Your task to perform on an android device: Clear all items from cart on newegg. Search for razer naga on newegg, select the first entry, add it to the cart, then select checkout. Image 0: 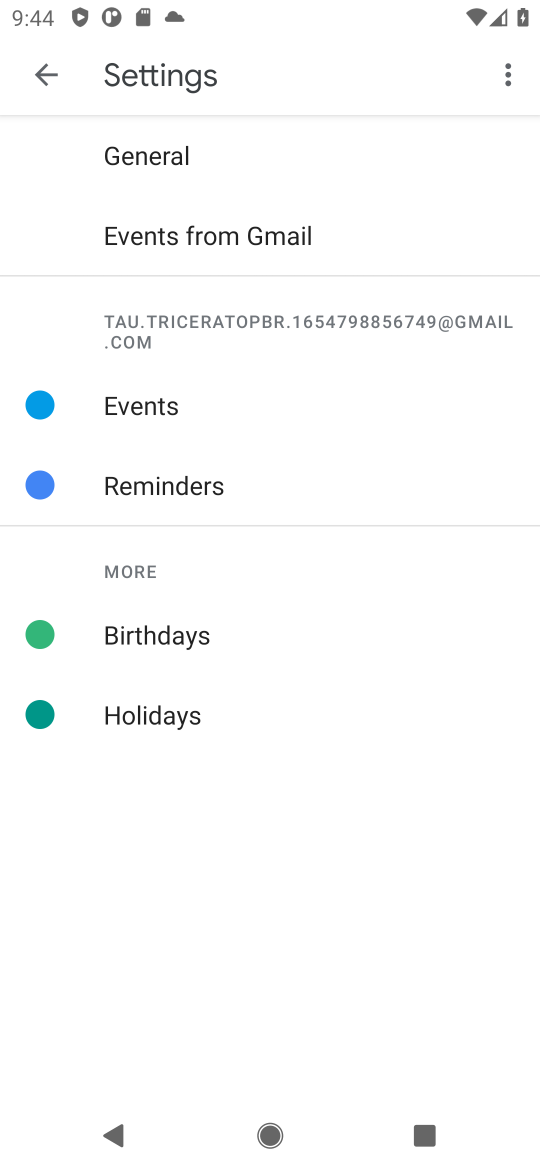
Step 0: press home button
Your task to perform on an android device: Clear all items from cart on newegg. Search for razer naga on newegg, select the first entry, add it to the cart, then select checkout. Image 1: 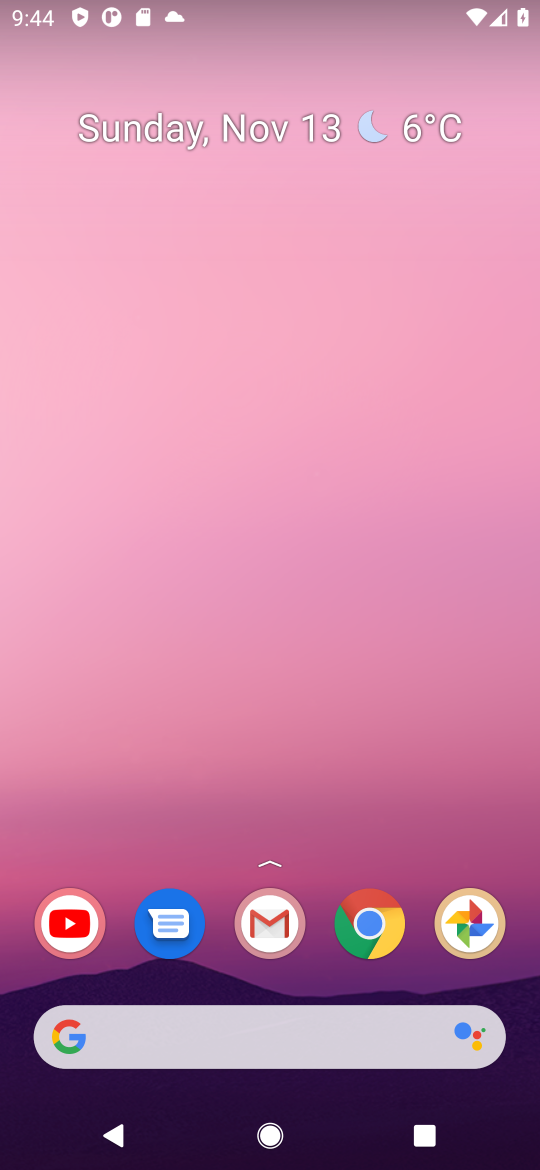
Step 1: click (364, 911)
Your task to perform on an android device: Clear all items from cart on newegg. Search for razer naga on newegg, select the first entry, add it to the cart, then select checkout. Image 2: 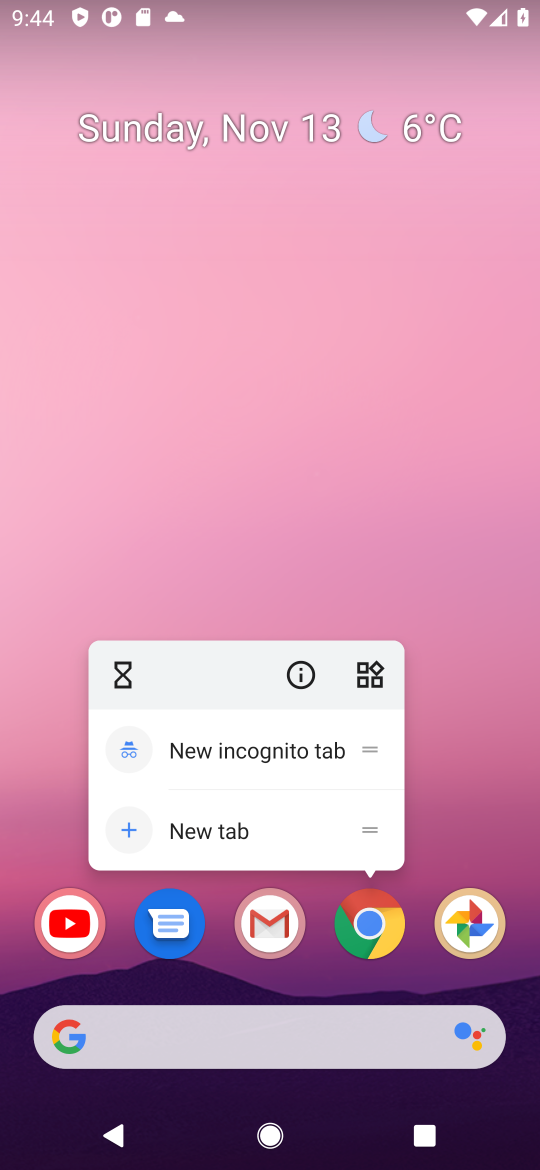
Step 2: click (364, 911)
Your task to perform on an android device: Clear all items from cart on newegg. Search for razer naga on newegg, select the first entry, add it to the cart, then select checkout. Image 3: 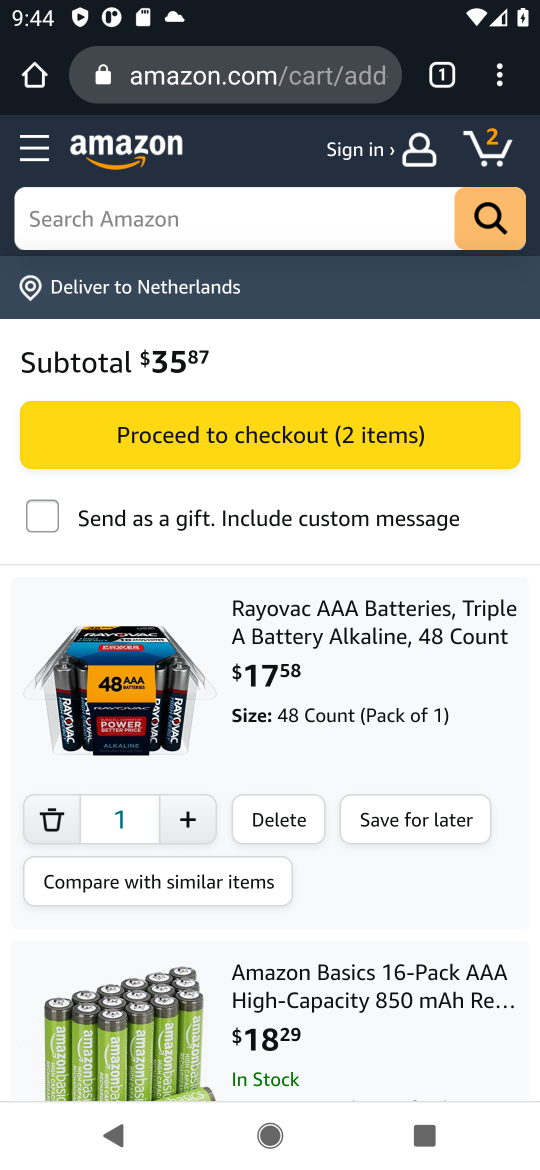
Step 3: click (310, 78)
Your task to perform on an android device: Clear all items from cart on newegg. Search for razer naga on newegg, select the first entry, add it to the cart, then select checkout. Image 4: 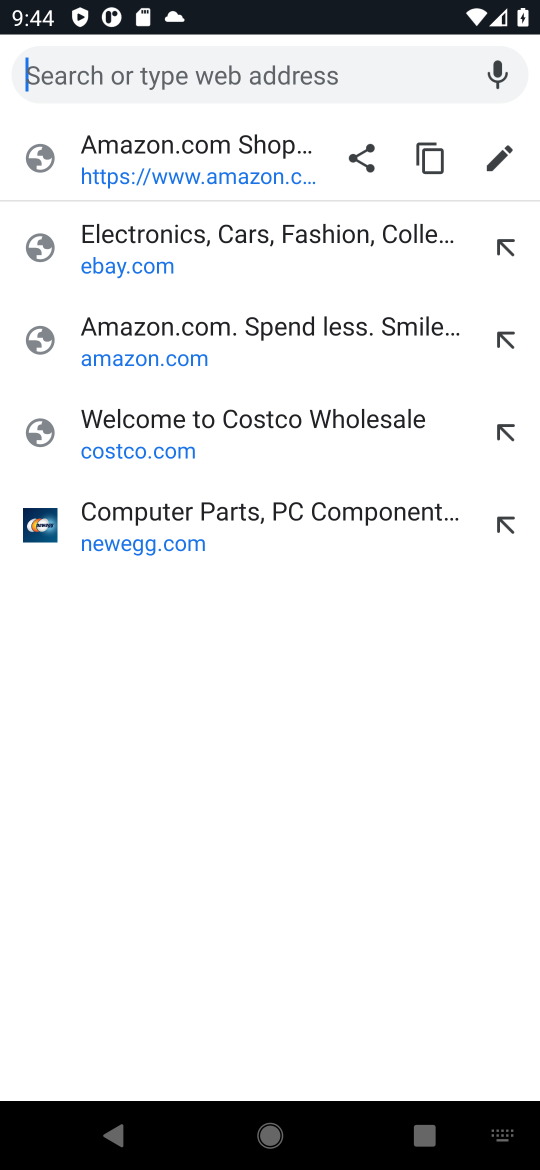
Step 4: click (342, 512)
Your task to perform on an android device: Clear all items from cart on newegg. Search for razer naga on newegg, select the first entry, add it to the cart, then select checkout. Image 5: 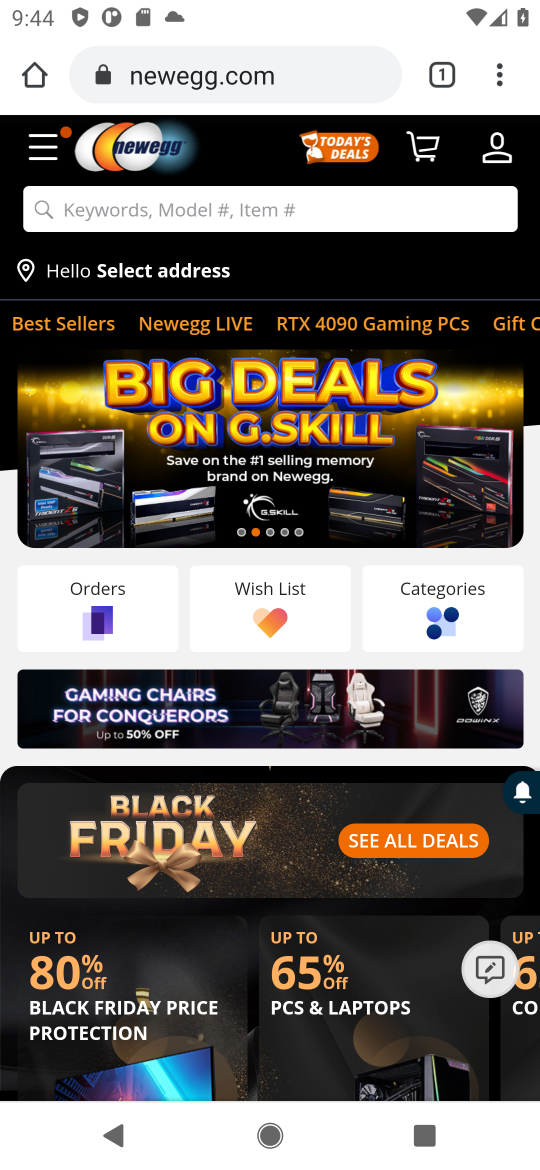
Step 5: click (421, 151)
Your task to perform on an android device: Clear all items from cart on newegg. Search for razer naga on newegg, select the first entry, add it to the cart, then select checkout. Image 6: 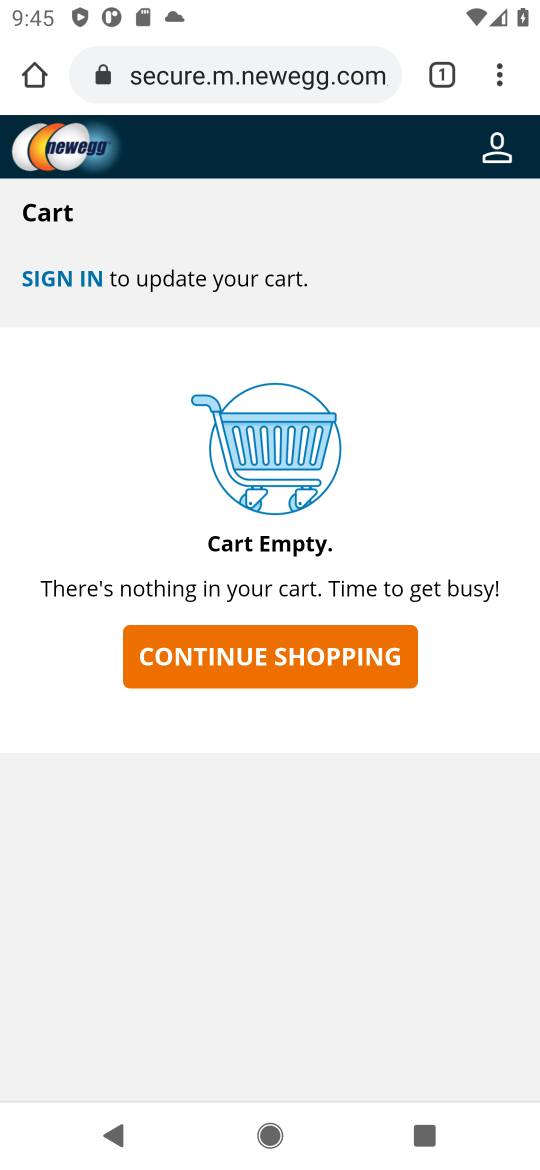
Step 6: press back button
Your task to perform on an android device: Clear all items from cart on newegg. Search for razer naga on newegg, select the first entry, add it to the cart, then select checkout. Image 7: 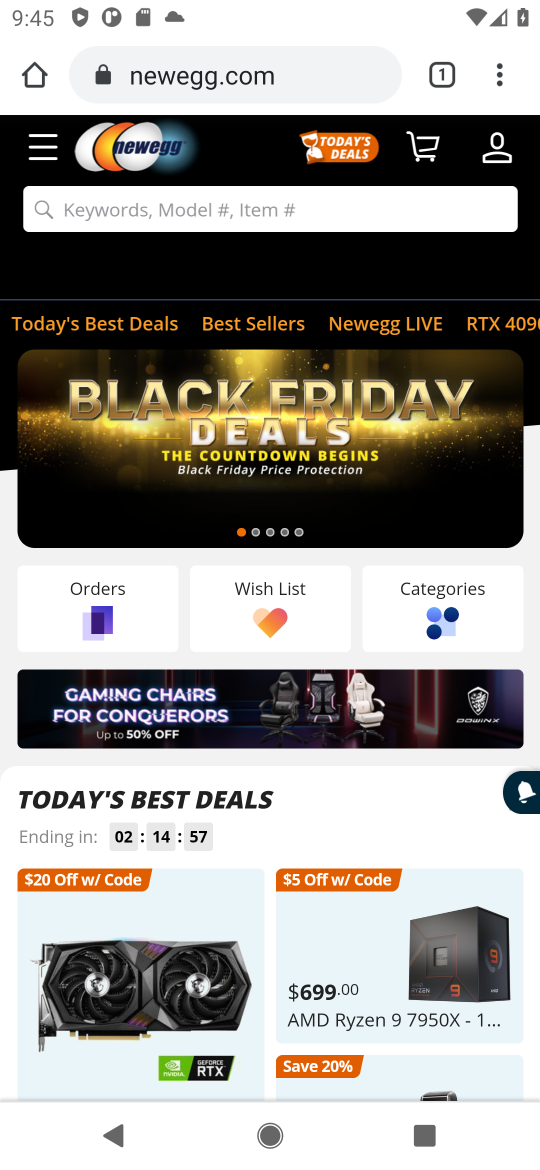
Step 7: click (357, 208)
Your task to perform on an android device: Clear all items from cart on newegg. Search for razer naga on newegg, select the first entry, add it to the cart, then select checkout. Image 8: 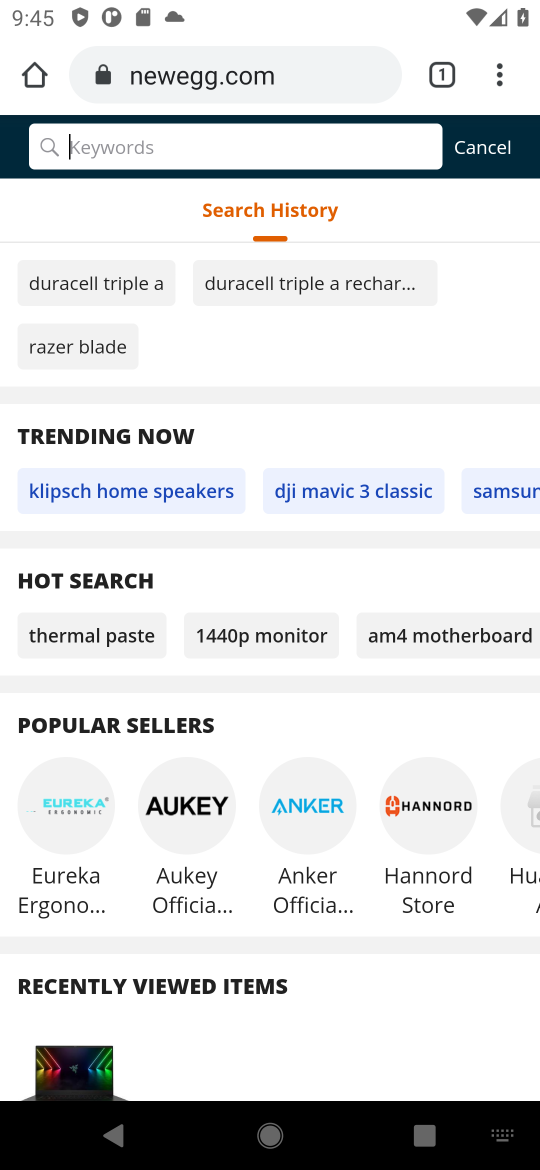
Step 8: type "razer naga"
Your task to perform on an android device: Clear all items from cart on newegg. Search for razer naga on newegg, select the first entry, add it to the cart, then select checkout. Image 9: 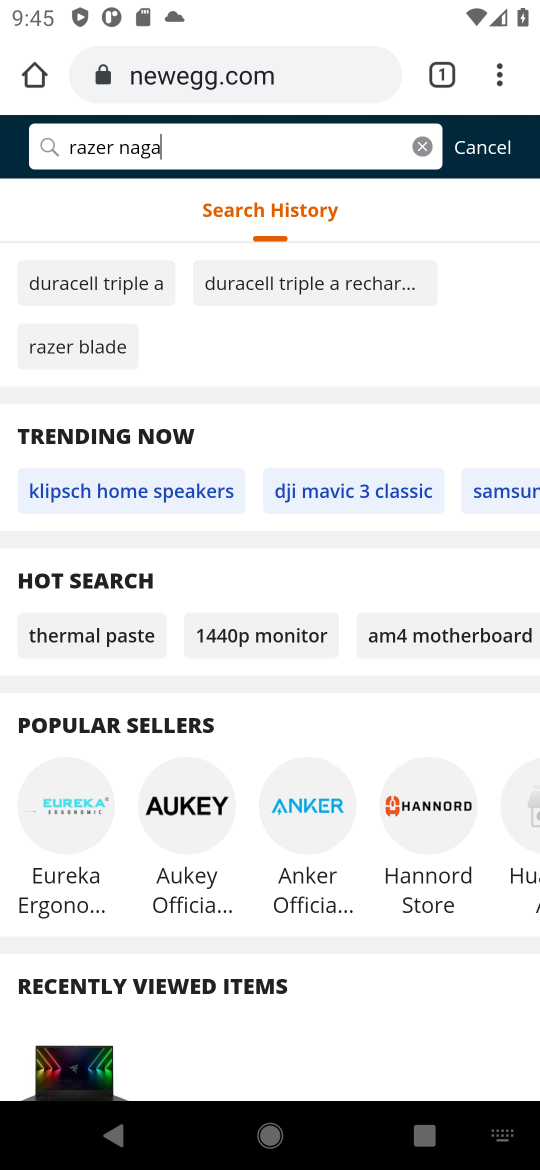
Step 9: press enter
Your task to perform on an android device: Clear all items from cart on newegg. Search for razer naga on newegg, select the first entry, add it to the cart, then select checkout. Image 10: 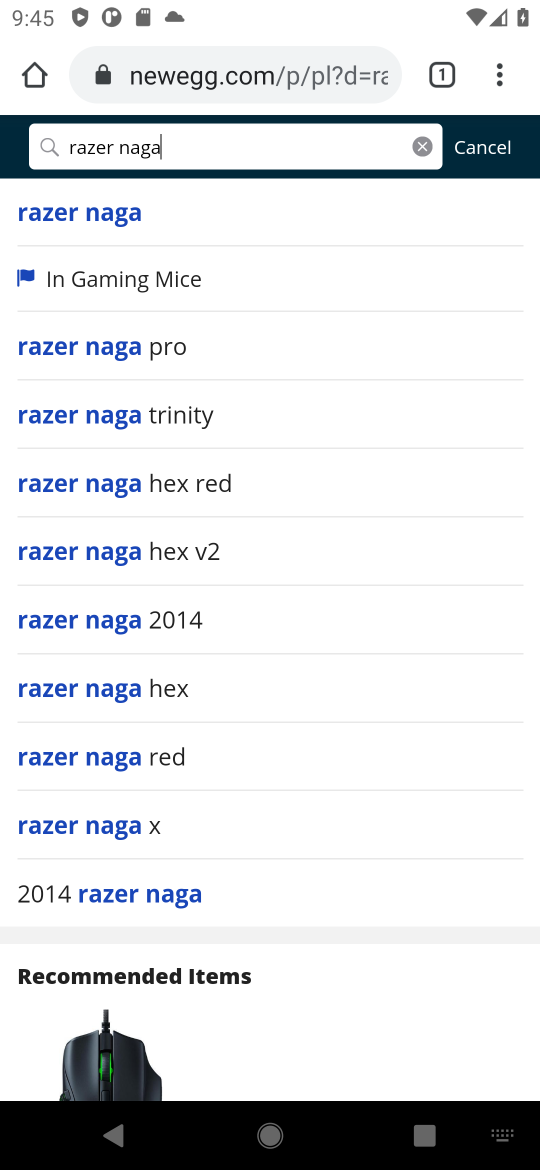
Step 10: click (104, 211)
Your task to perform on an android device: Clear all items from cart on newegg. Search for razer naga on newegg, select the first entry, add it to the cart, then select checkout. Image 11: 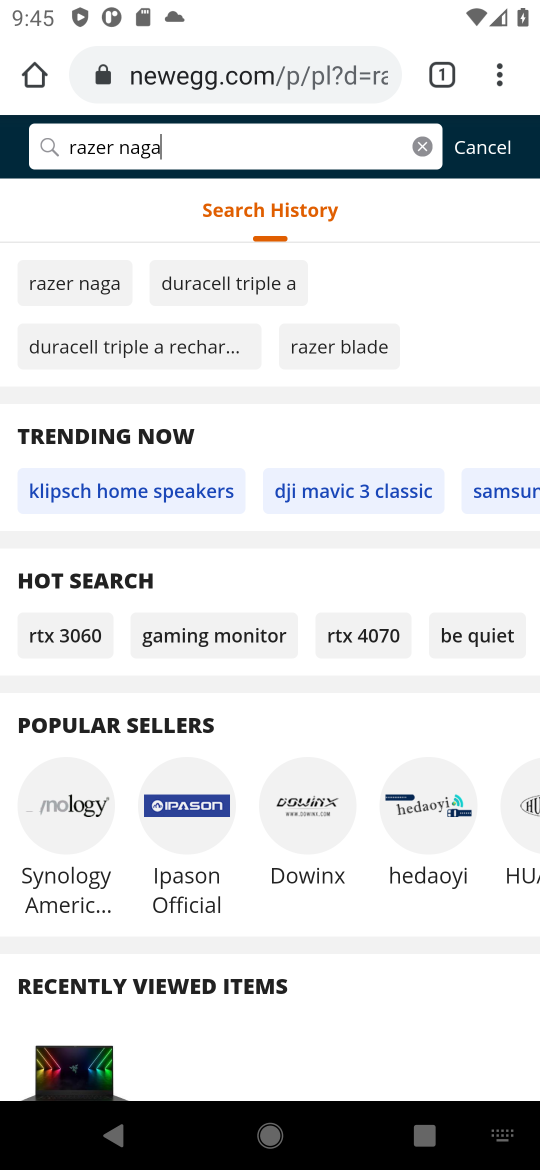
Step 11: drag from (429, 964) to (439, 414)
Your task to perform on an android device: Clear all items from cart on newegg. Search for razer naga on newegg, select the first entry, add it to the cart, then select checkout. Image 12: 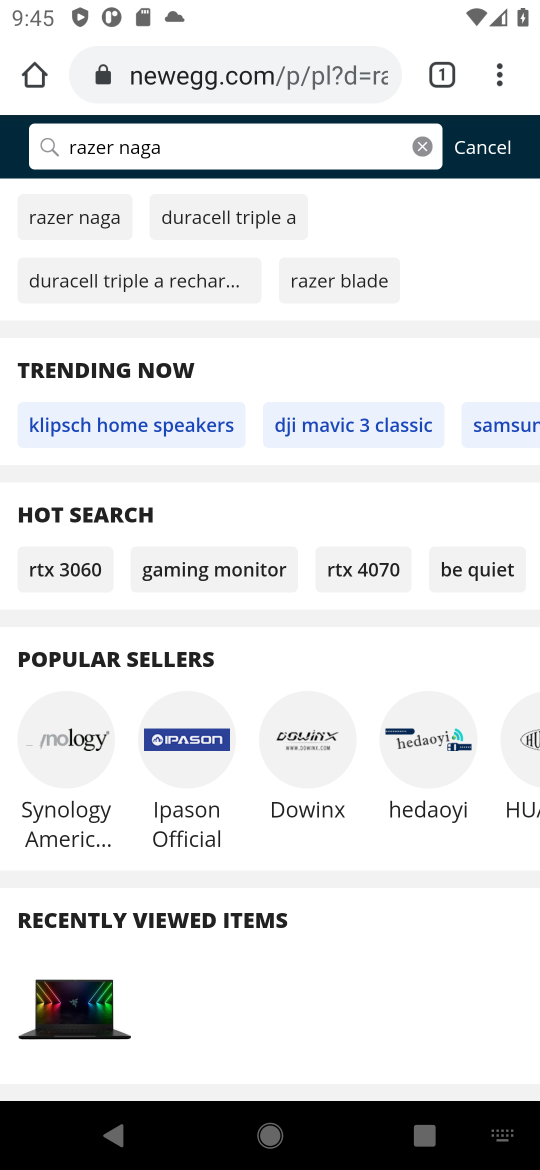
Step 12: click (98, 210)
Your task to perform on an android device: Clear all items from cart on newegg. Search for razer naga on newegg, select the first entry, add it to the cart, then select checkout. Image 13: 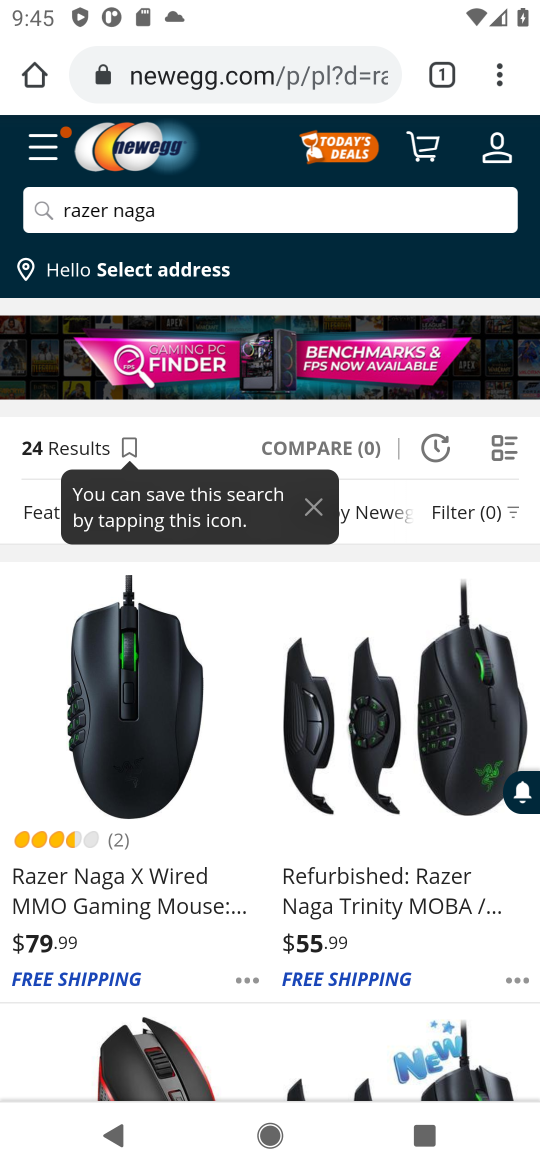
Step 13: click (117, 713)
Your task to perform on an android device: Clear all items from cart on newegg. Search for razer naga on newegg, select the first entry, add it to the cart, then select checkout. Image 14: 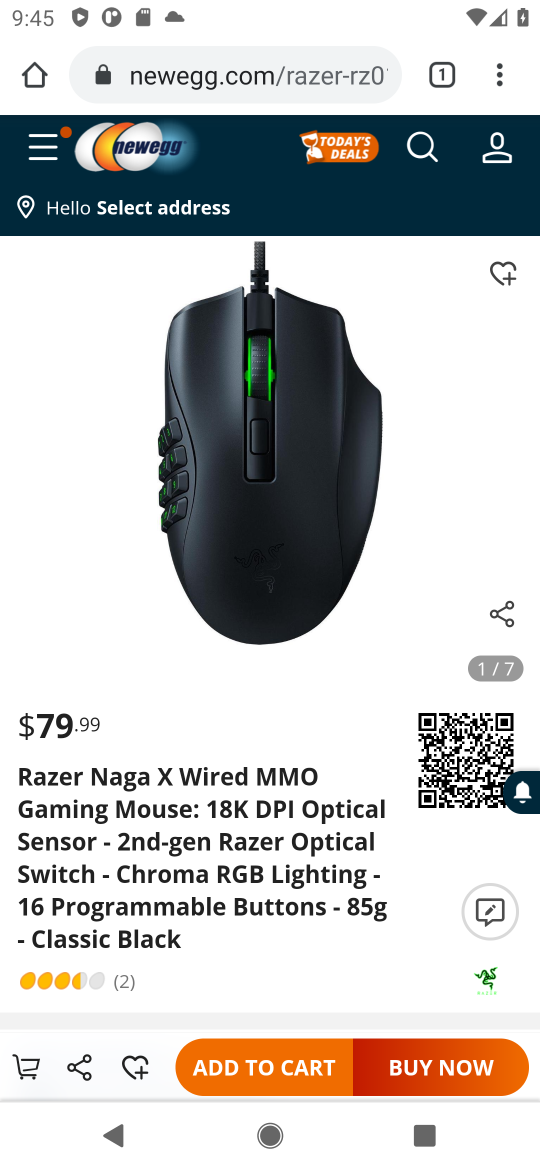
Step 14: click (258, 1056)
Your task to perform on an android device: Clear all items from cart on newegg. Search for razer naga on newegg, select the first entry, add it to the cart, then select checkout. Image 15: 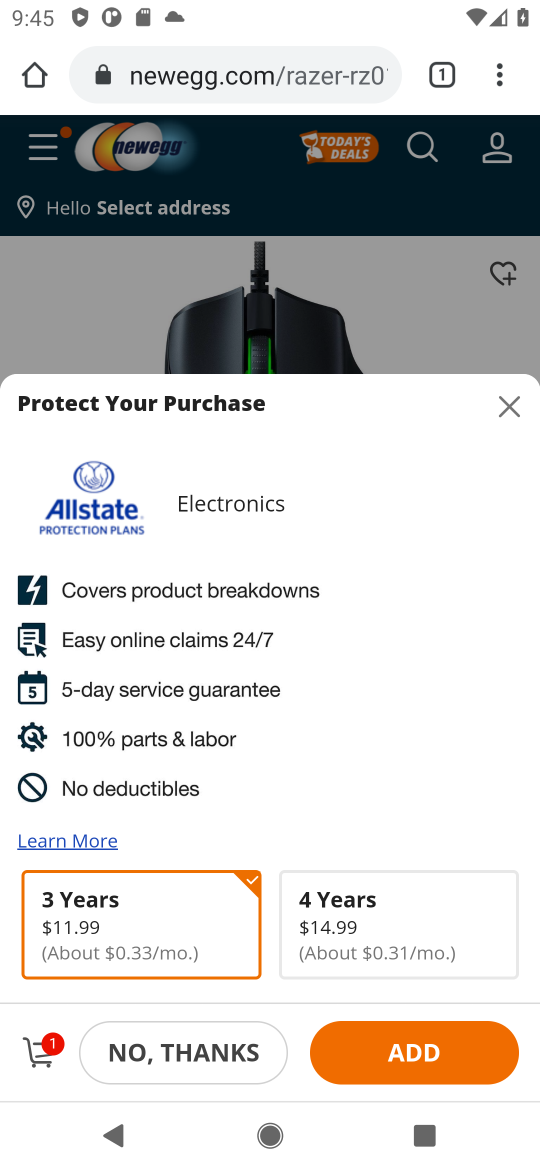
Step 15: click (504, 407)
Your task to perform on an android device: Clear all items from cart on newegg. Search for razer naga on newegg, select the first entry, add it to the cart, then select checkout. Image 16: 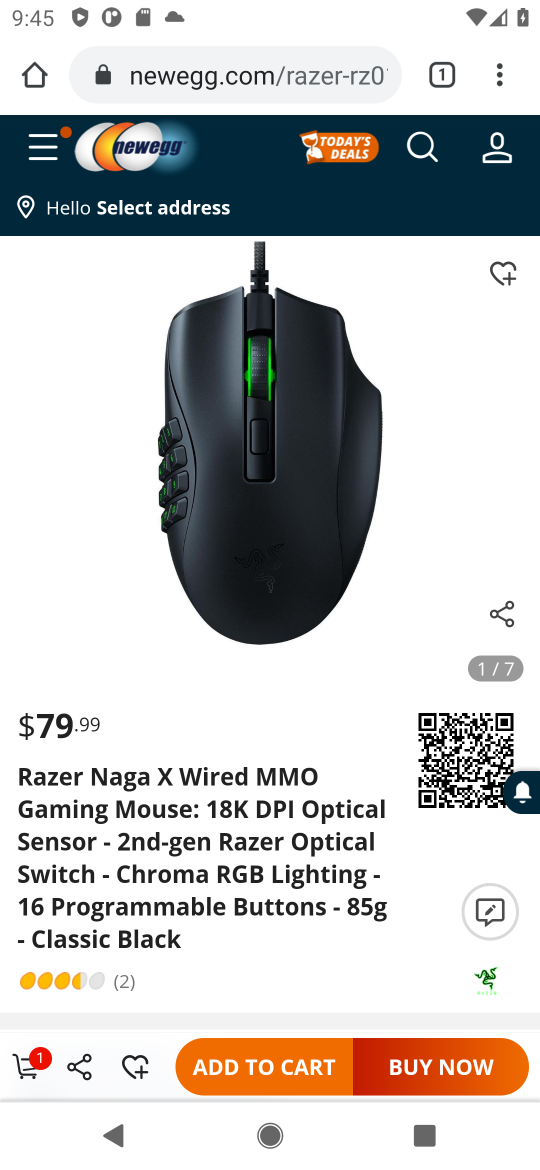
Step 16: click (27, 1070)
Your task to perform on an android device: Clear all items from cart on newegg. Search for razer naga on newegg, select the first entry, add it to the cart, then select checkout. Image 17: 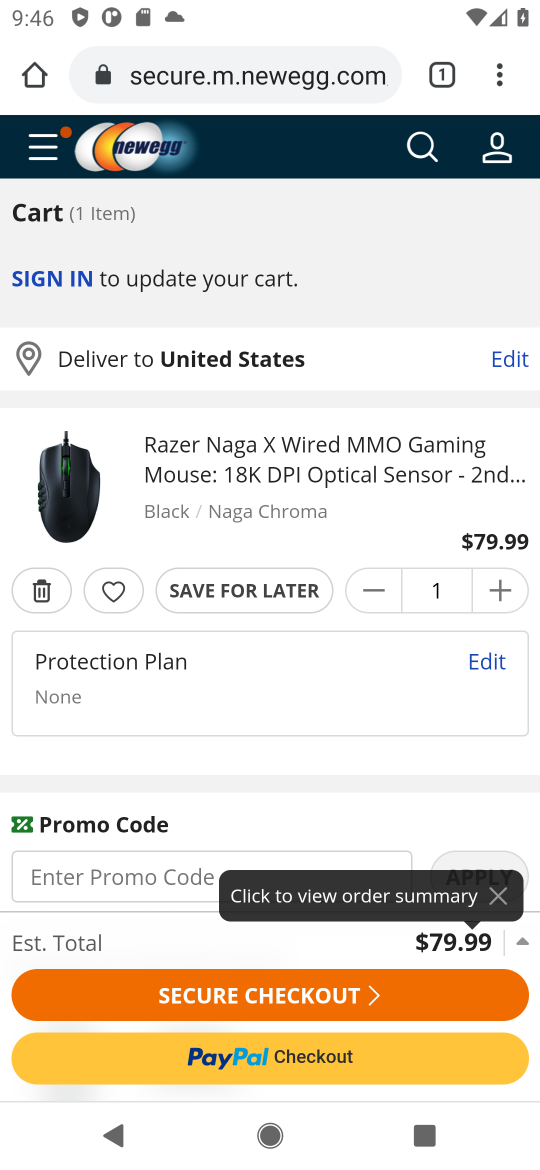
Step 17: click (281, 993)
Your task to perform on an android device: Clear all items from cart on newegg. Search for razer naga on newegg, select the first entry, add it to the cart, then select checkout. Image 18: 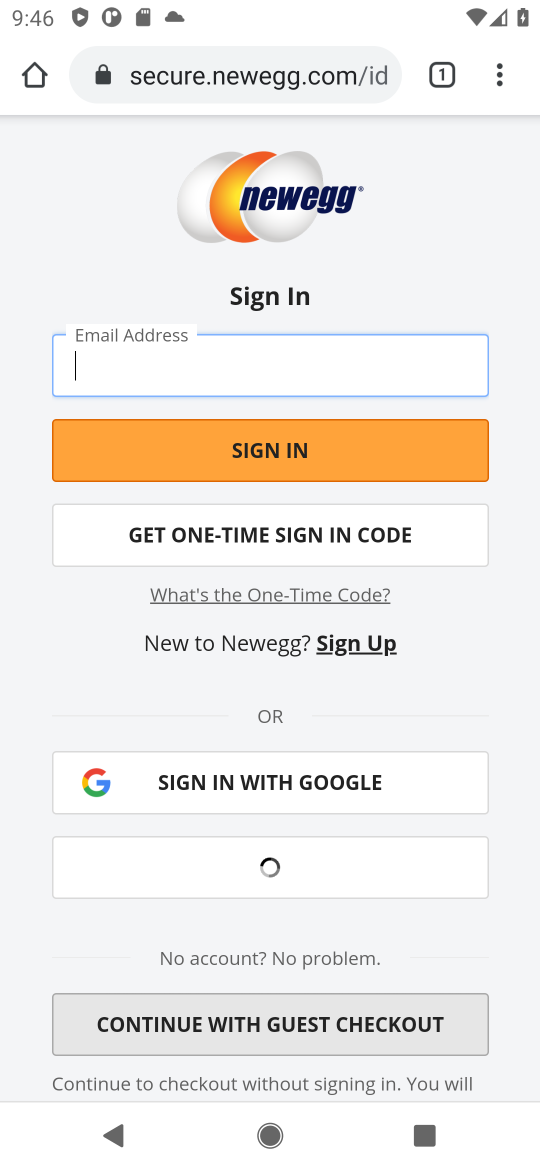
Step 18: task complete